Your task to perform on an android device: turn off javascript in the chrome app Image 0: 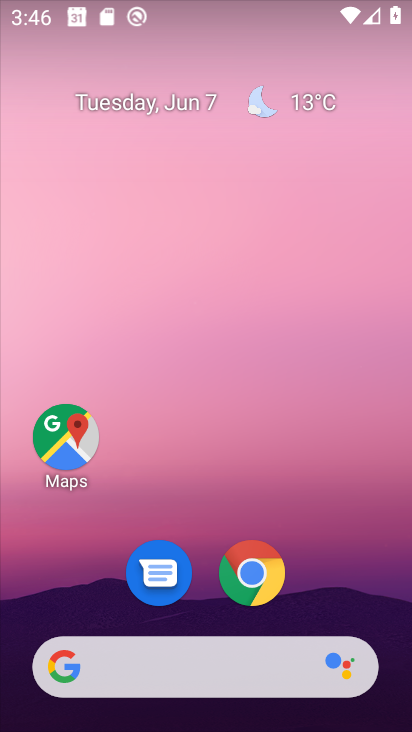
Step 0: click (285, 580)
Your task to perform on an android device: turn off javascript in the chrome app Image 1: 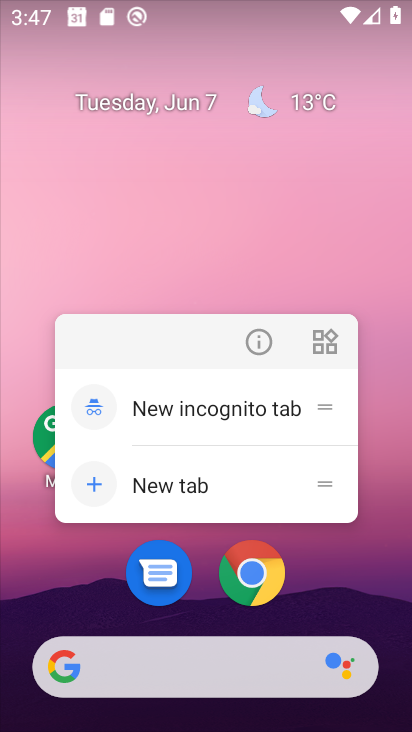
Step 1: click (271, 578)
Your task to perform on an android device: turn off javascript in the chrome app Image 2: 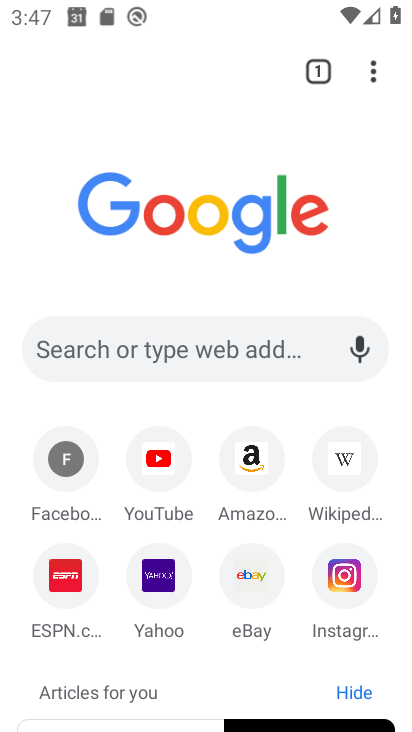
Step 2: drag from (366, 66) to (167, 597)
Your task to perform on an android device: turn off javascript in the chrome app Image 3: 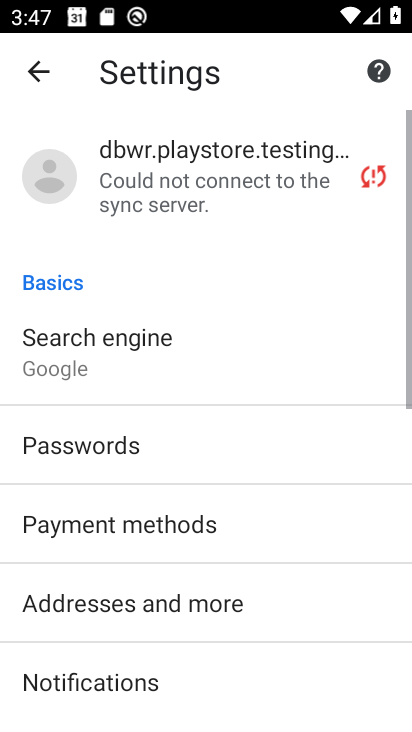
Step 3: drag from (208, 643) to (216, 308)
Your task to perform on an android device: turn off javascript in the chrome app Image 4: 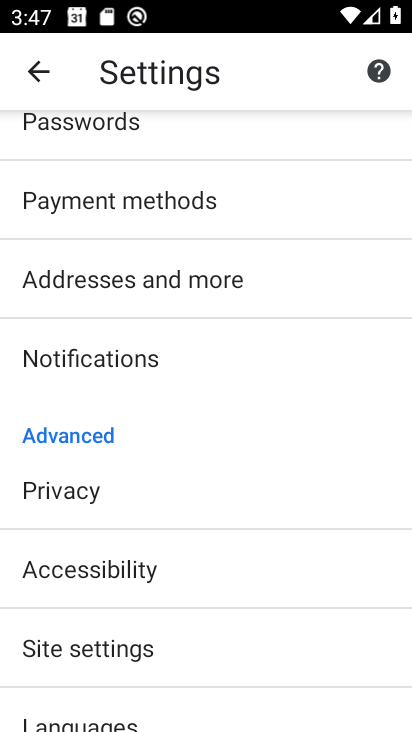
Step 4: drag from (143, 650) to (170, 551)
Your task to perform on an android device: turn off javascript in the chrome app Image 5: 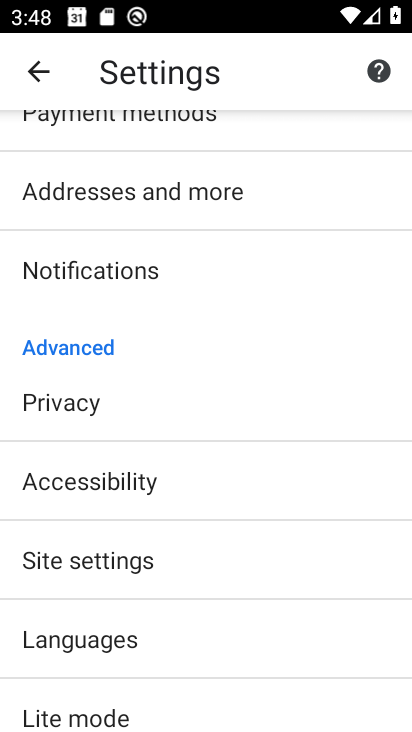
Step 5: click (168, 558)
Your task to perform on an android device: turn off javascript in the chrome app Image 6: 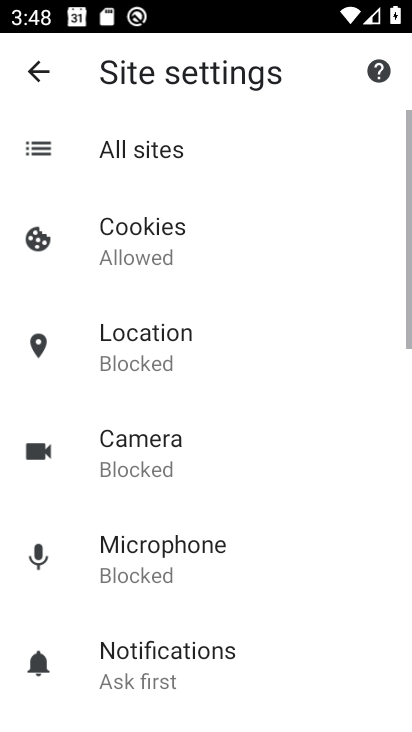
Step 6: drag from (168, 558) to (206, 388)
Your task to perform on an android device: turn off javascript in the chrome app Image 7: 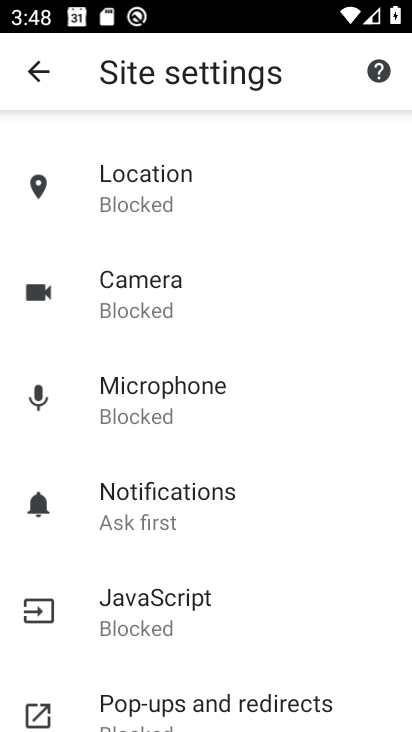
Step 7: click (172, 599)
Your task to perform on an android device: turn off javascript in the chrome app Image 8: 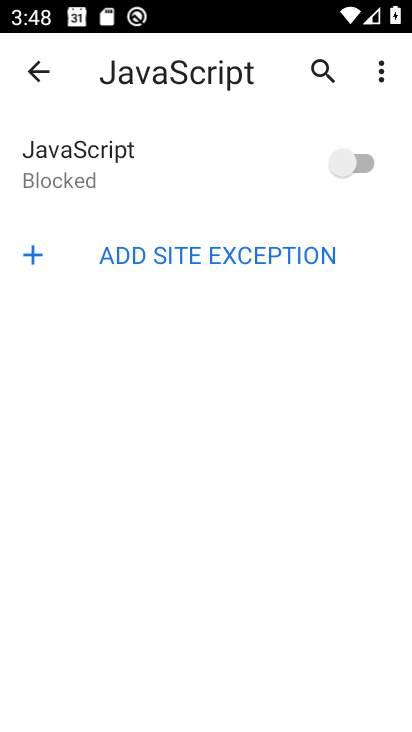
Step 8: task complete